Your task to perform on an android device: Go to Wikipedia Image 0: 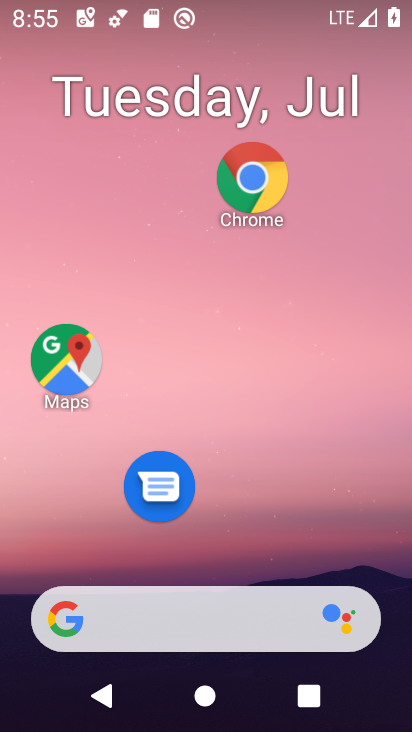
Step 0: drag from (290, 550) to (372, 69)
Your task to perform on an android device: Go to Wikipedia Image 1: 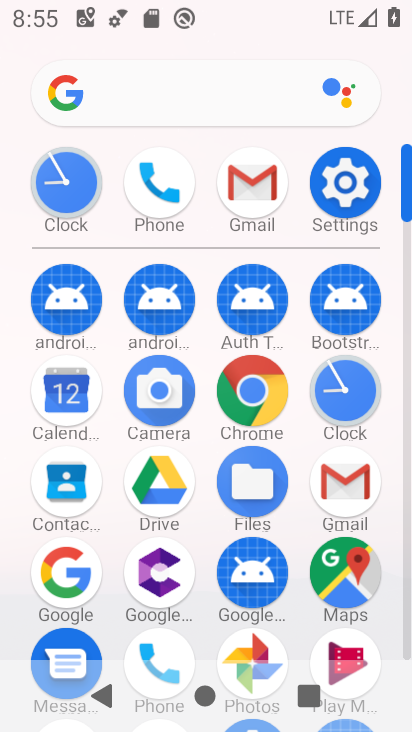
Step 1: click (264, 398)
Your task to perform on an android device: Go to Wikipedia Image 2: 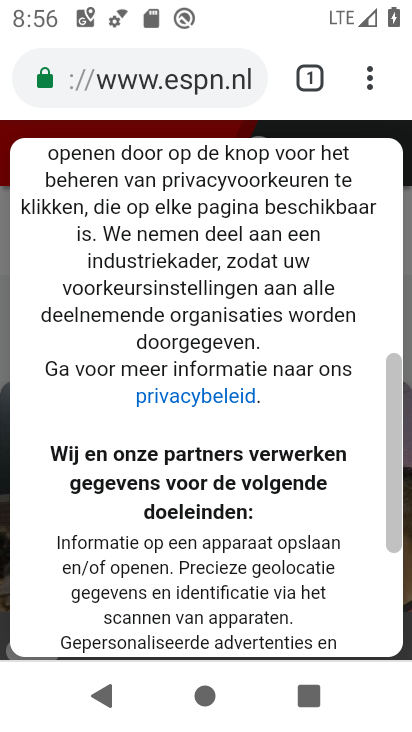
Step 2: click (223, 83)
Your task to perform on an android device: Go to Wikipedia Image 3: 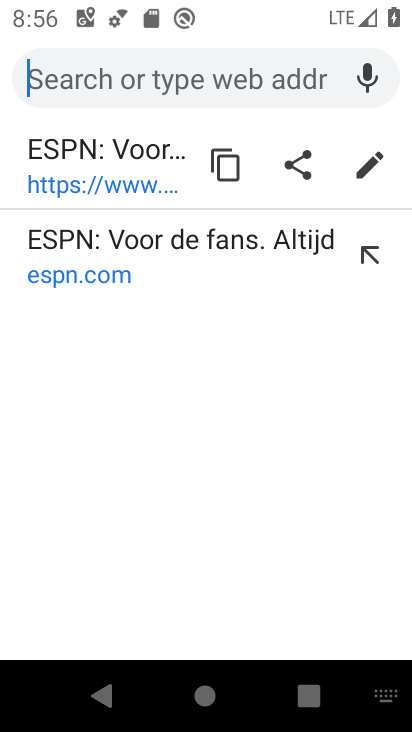
Step 3: click (226, 72)
Your task to perform on an android device: Go to Wikipedia Image 4: 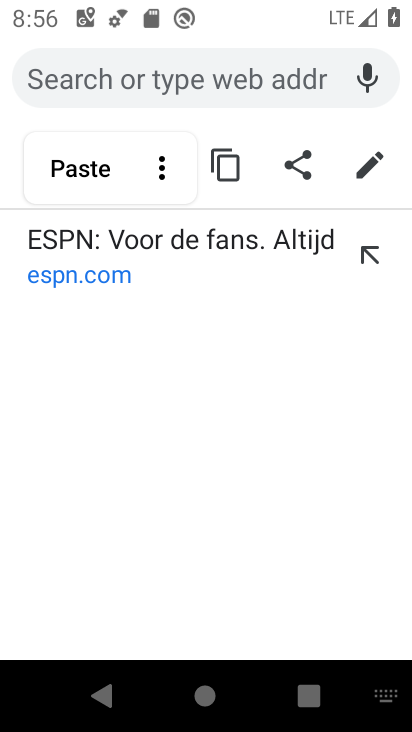
Step 4: type "wikipedia"
Your task to perform on an android device: Go to Wikipedia Image 5: 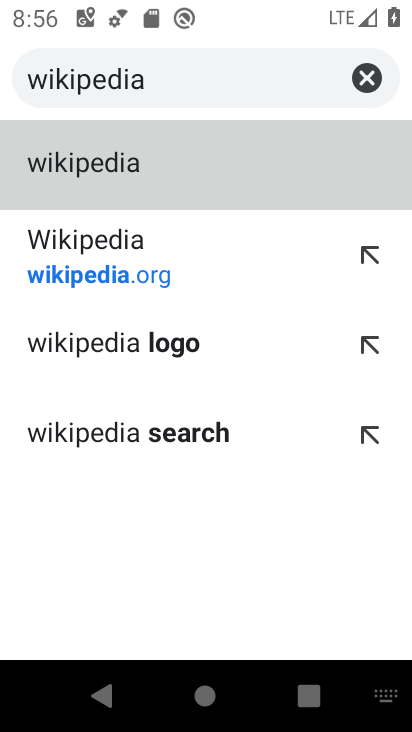
Step 5: click (149, 267)
Your task to perform on an android device: Go to Wikipedia Image 6: 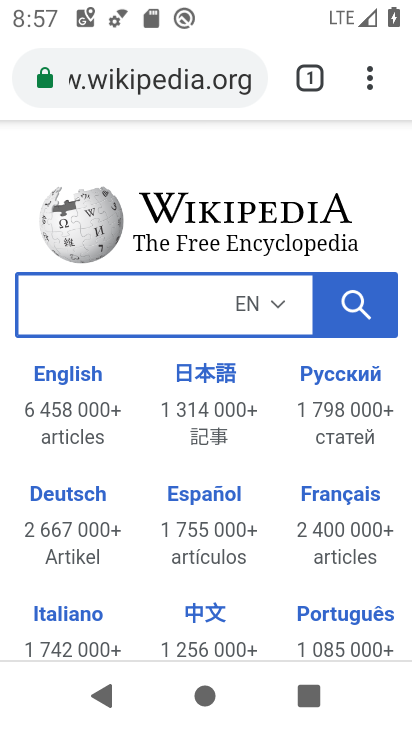
Step 6: task complete